Your task to perform on an android device: check battery use Image 0: 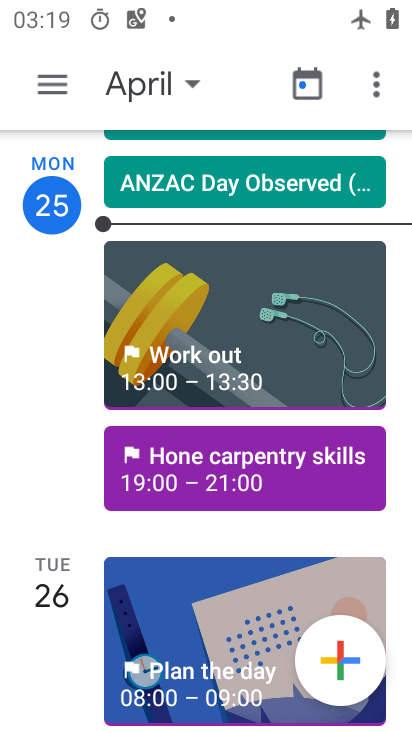
Step 0: press back button
Your task to perform on an android device: check battery use Image 1: 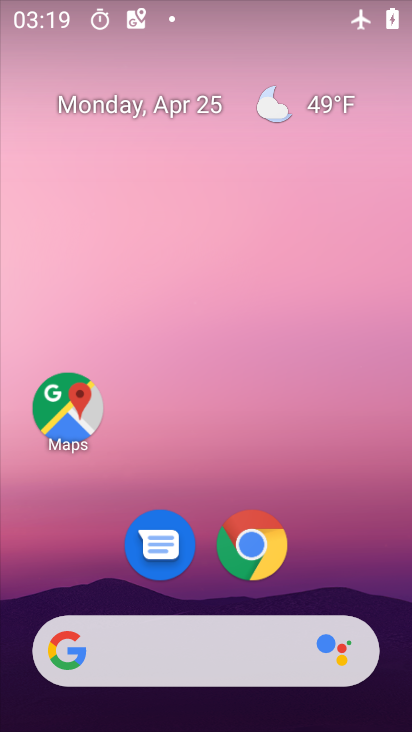
Step 1: drag from (207, 451) to (203, 7)
Your task to perform on an android device: check battery use Image 2: 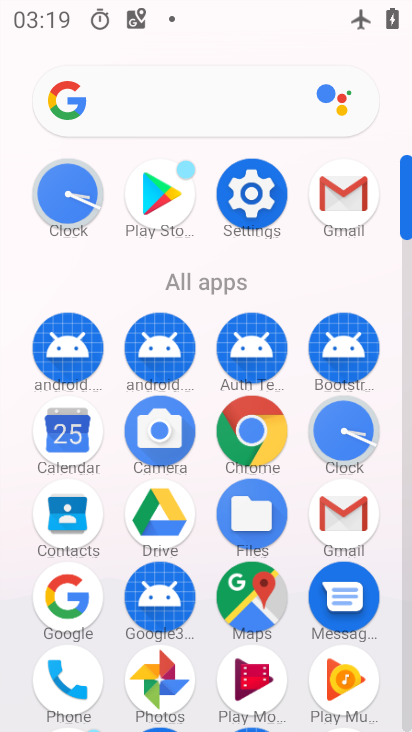
Step 2: click (247, 196)
Your task to perform on an android device: check battery use Image 3: 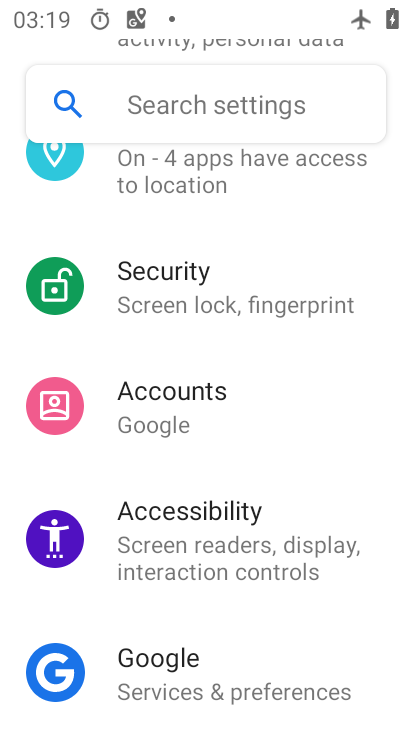
Step 3: drag from (242, 371) to (255, 452)
Your task to perform on an android device: check battery use Image 4: 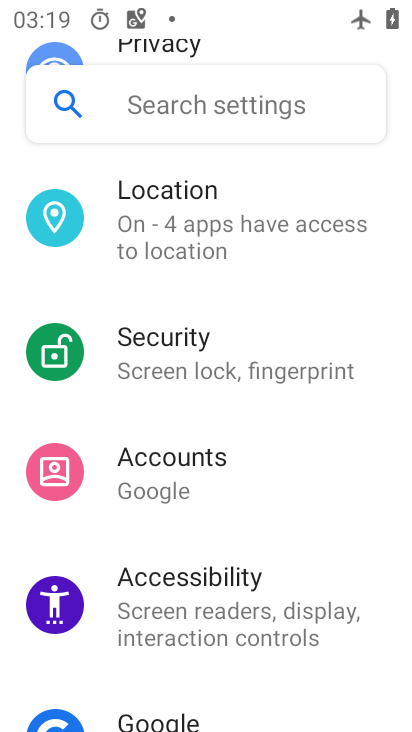
Step 4: drag from (270, 309) to (291, 429)
Your task to perform on an android device: check battery use Image 5: 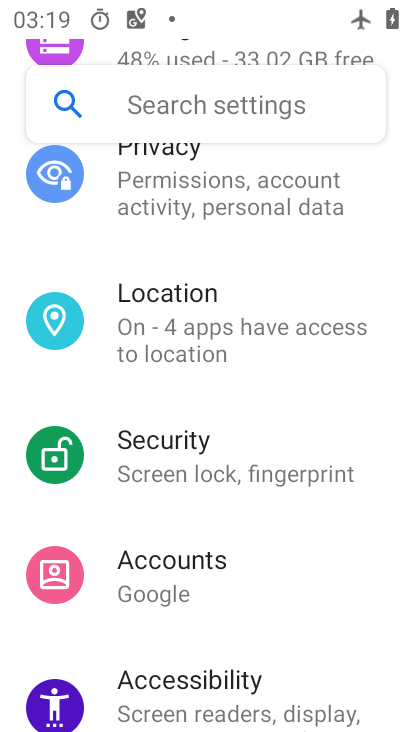
Step 5: drag from (271, 266) to (294, 384)
Your task to perform on an android device: check battery use Image 6: 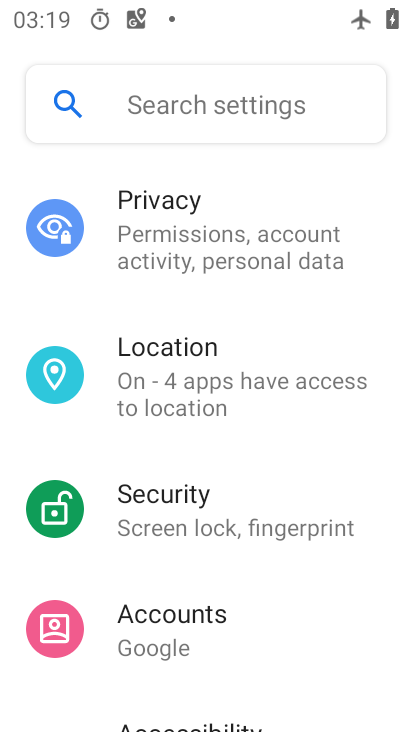
Step 6: drag from (302, 296) to (295, 371)
Your task to perform on an android device: check battery use Image 7: 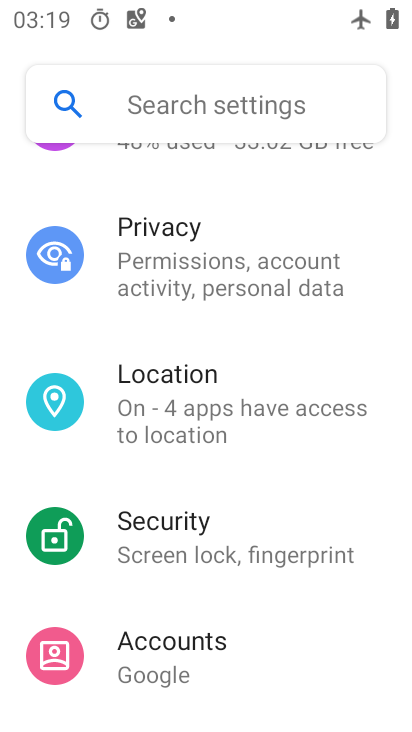
Step 7: drag from (250, 202) to (241, 338)
Your task to perform on an android device: check battery use Image 8: 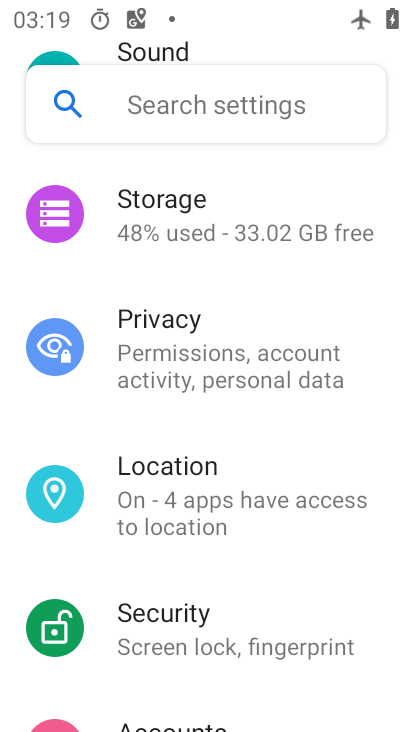
Step 8: drag from (261, 204) to (280, 352)
Your task to perform on an android device: check battery use Image 9: 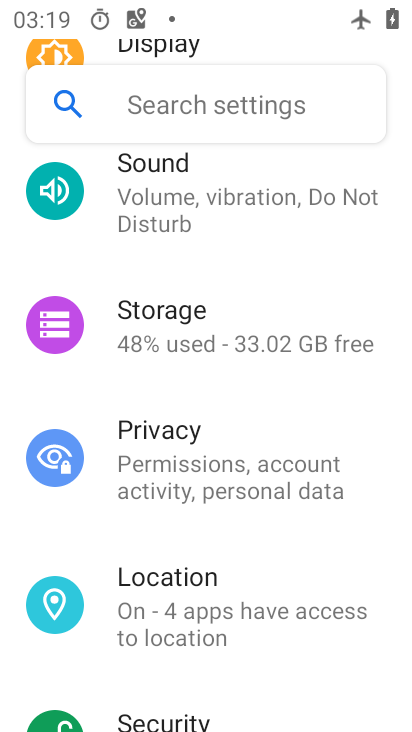
Step 9: drag from (270, 245) to (292, 341)
Your task to perform on an android device: check battery use Image 10: 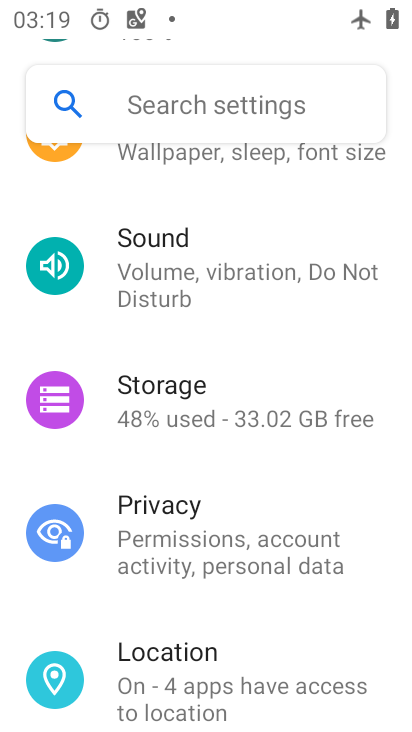
Step 10: drag from (265, 216) to (286, 323)
Your task to perform on an android device: check battery use Image 11: 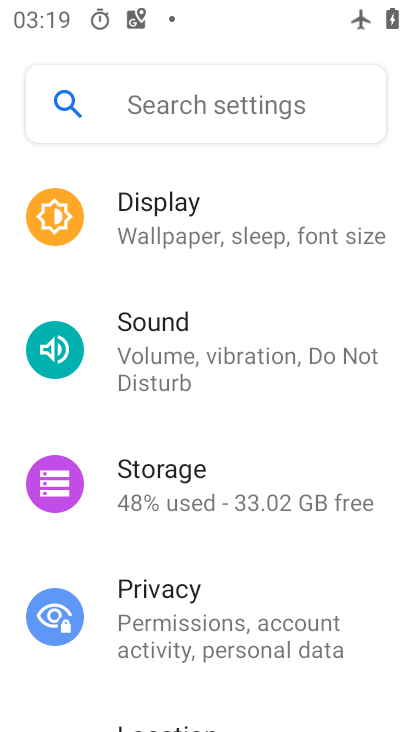
Step 11: drag from (239, 193) to (255, 312)
Your task to perform on an android device: check battery use Image 12: 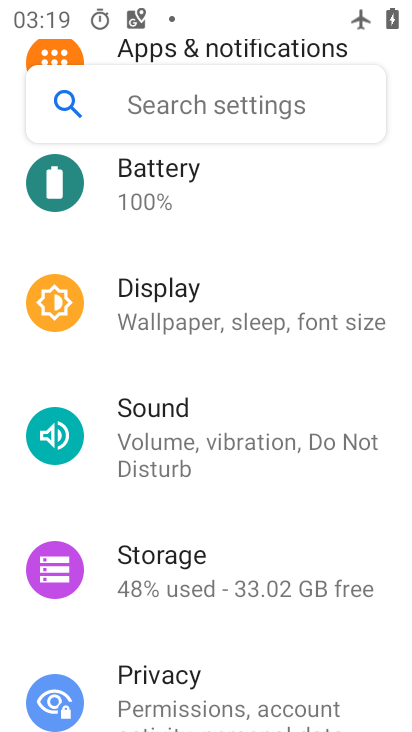
Step 12: drag from (220, 251) to (249, 335)
Your task to perform on an android device: check battery use Image 13: 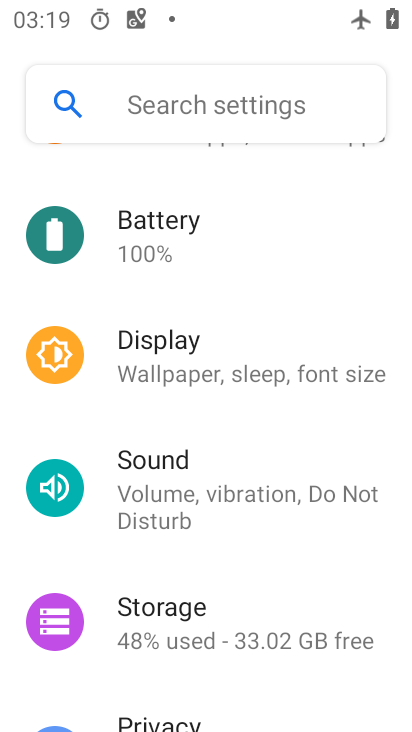
Step 13: click (171, 213)
Your task to perform on an android device: check battery use Image 14: 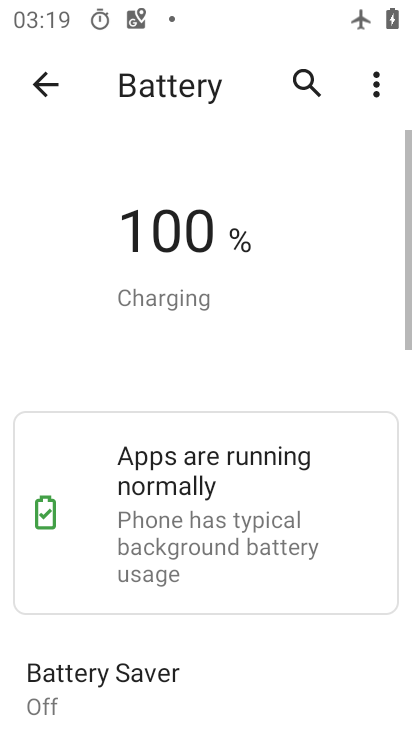
Step 14: click (374, 87)
Your task to perform on an android device: check battery use Image 15: 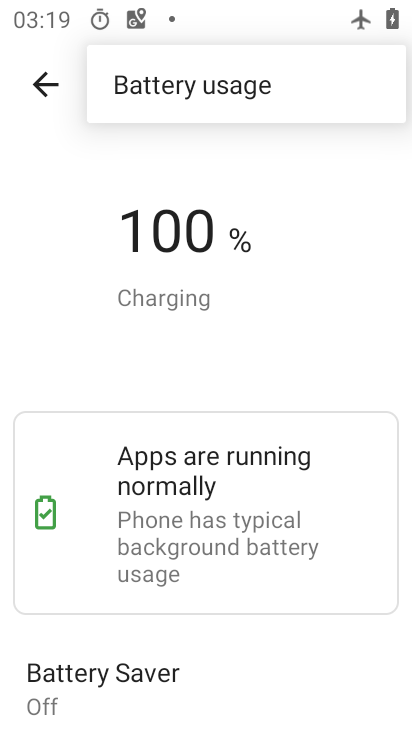
Step 15: click (273, 94)
Your task to perform on an android device: check battery use Image 16: 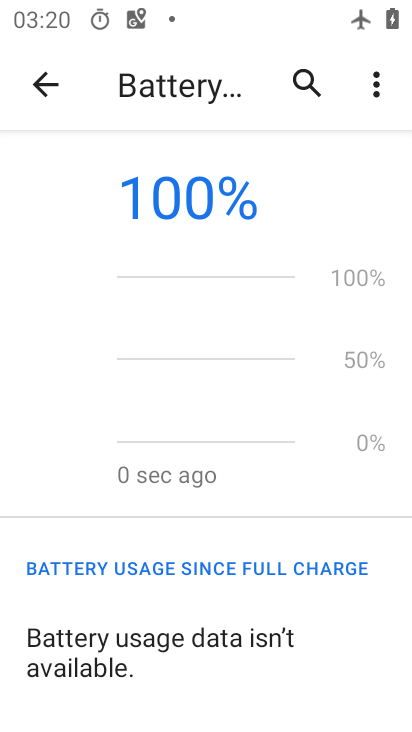
Step 16: task complete